Your task to perform on an android device: What's on my calendar tomorrow? Image 0: 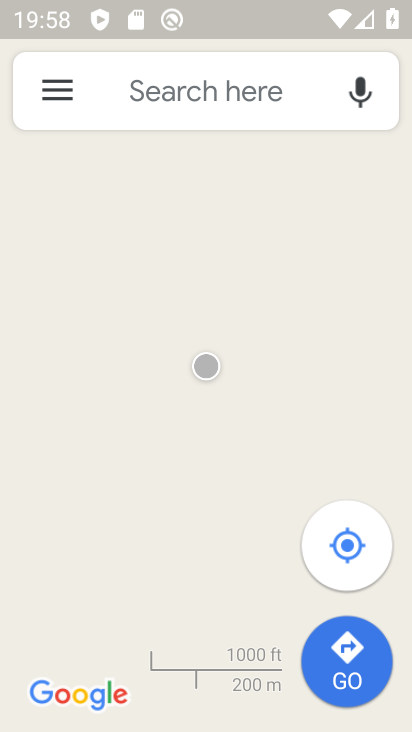
Step 0: press home button
Your task to perform on an android device: What's on my calendar tomorrow? Image 1: 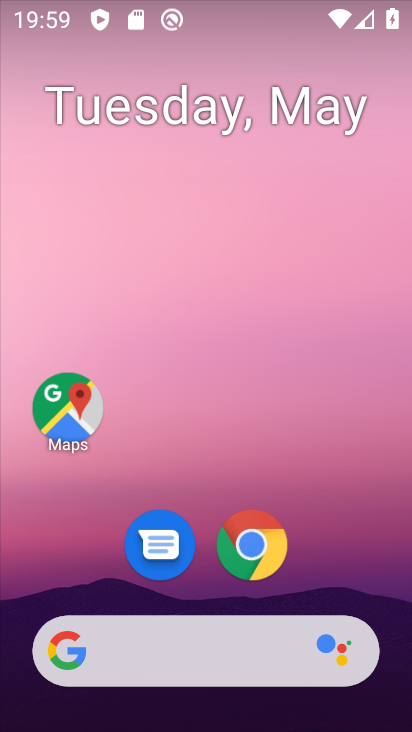
Step 1: drag from (360, 1) to (348, 142)
Your task to perform on an android device: What's on my calendar tomorrow? Image 2: 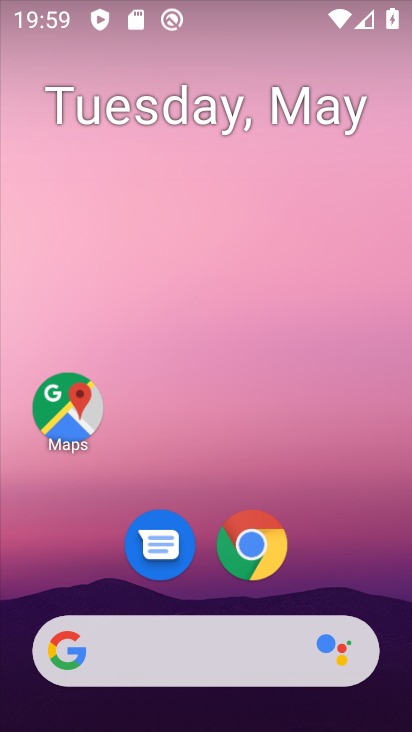
Step 2: drag from (197, 515) to (181, 39)
Your task to perform on an android device: What's on my calendar tomorrow? Image 3: 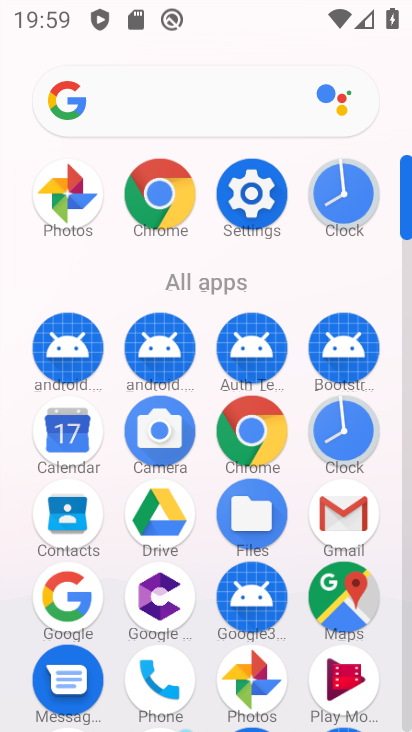
Step 3: click (69, 436)
Your task to perform on an android device: What's on my calendar tomorrow? Image 4: 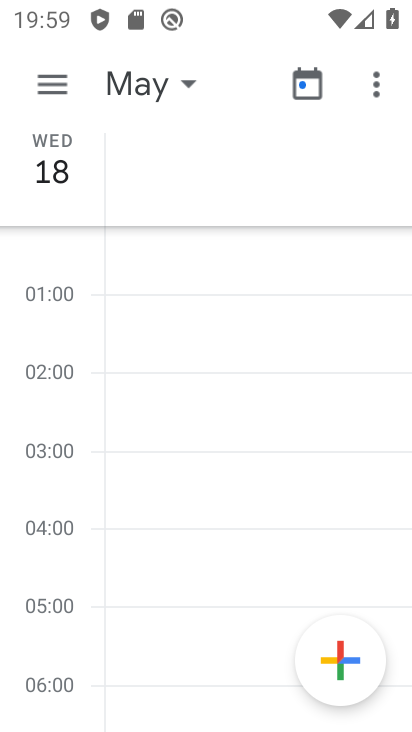
Step 4: click (128, 80)
Your task to perform on an android device: What's on my calendar tomorrow? Image 5: 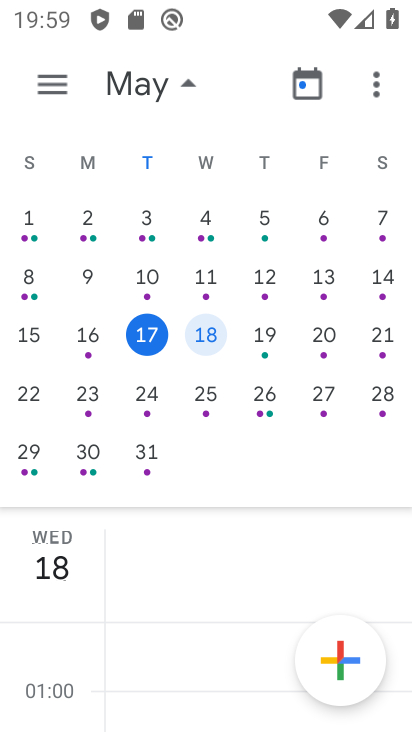
Step 5: click (206, 337)
Your task to perform on an android device: What's on my calendar tomorrow? Image 6: 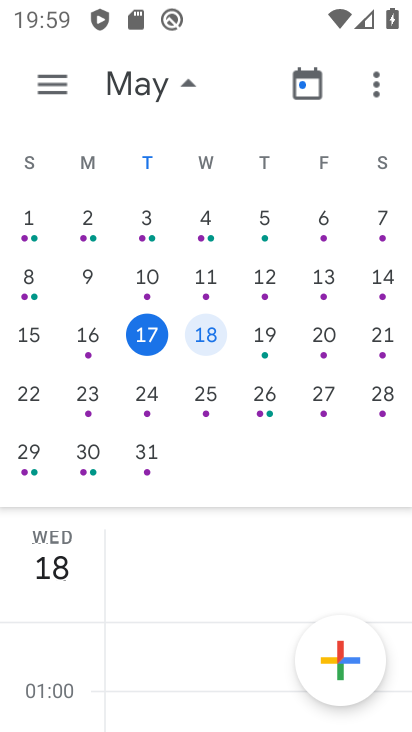
Step 6: task complete